Your task to perform on an android device: change the upload size in google photos Image 0: 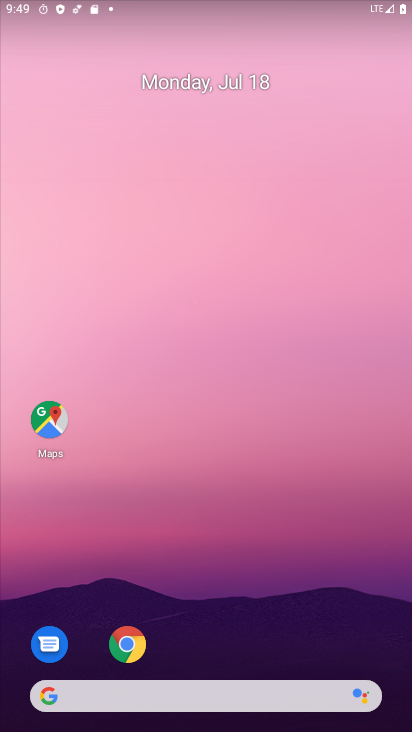
Step 0: drag from (211, 658) to (217, 10)
Your task to perform on an android device: change the upload size in google photos Image 1: 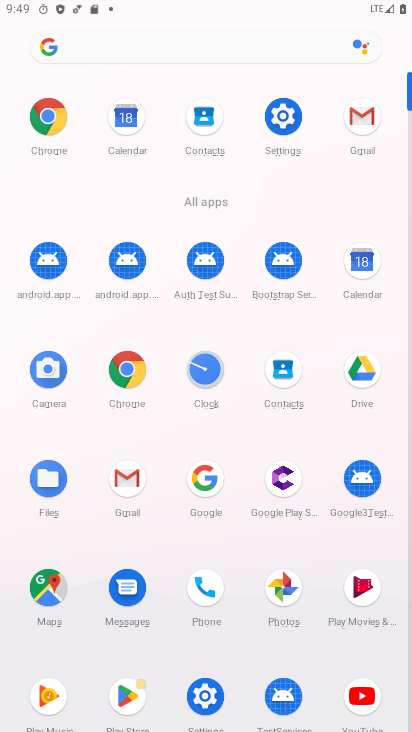
Step 1: click (279, 589)
Your task to perform on an android device: change the upload size in google photos Image 2: 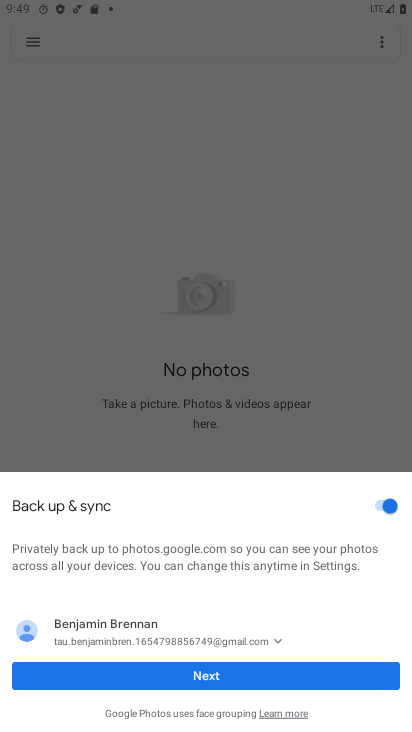
Step 2: click (207, 670)
Your task to perform on an android device: change the upload size in google photos Image 3: 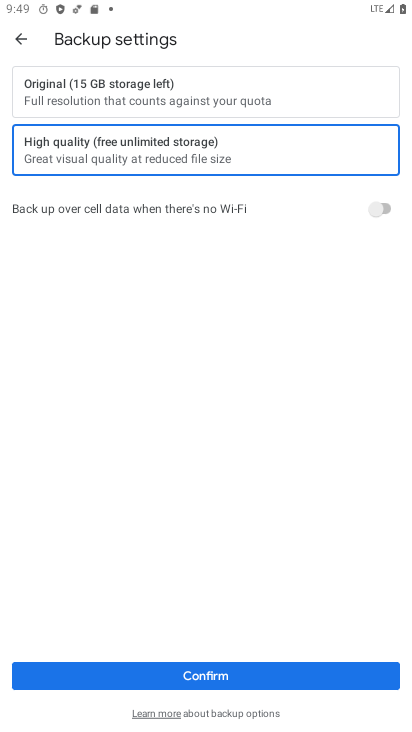
Step 3: click (100, 92)
Your task to perform on an android device: change the upload size in google photos Image 4: 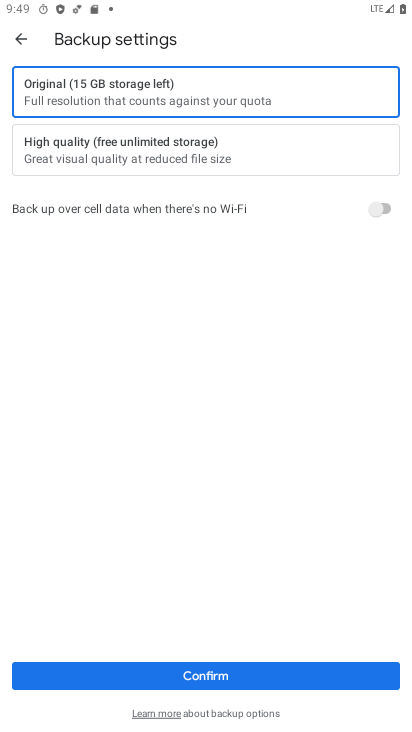
Step 4: click (213, 674)
Your task to perform on an android device: change the upload size in google photos Image 5: 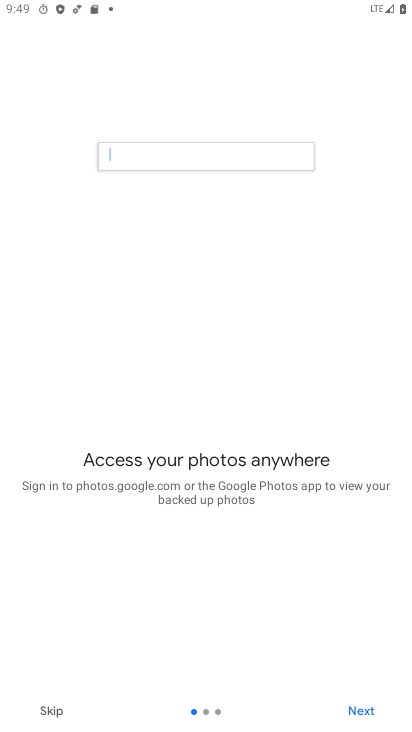
Step 5: task complete